Your task to perform on an android device: check data usage Image 0: 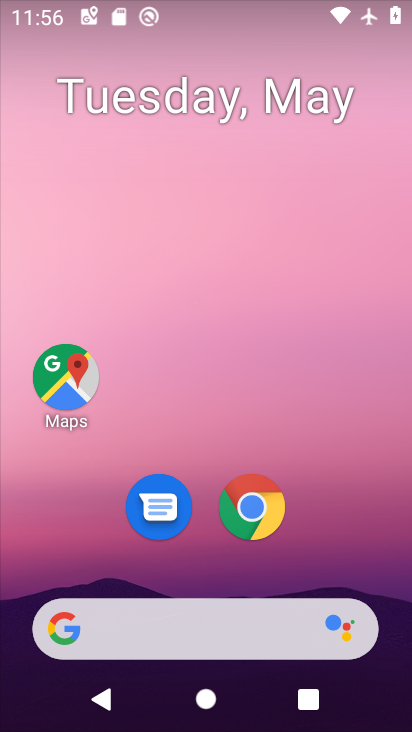
Step 0: drag from (258, 679) to (298, 58)
Your task to perform on an android device: check data usage Image 1: 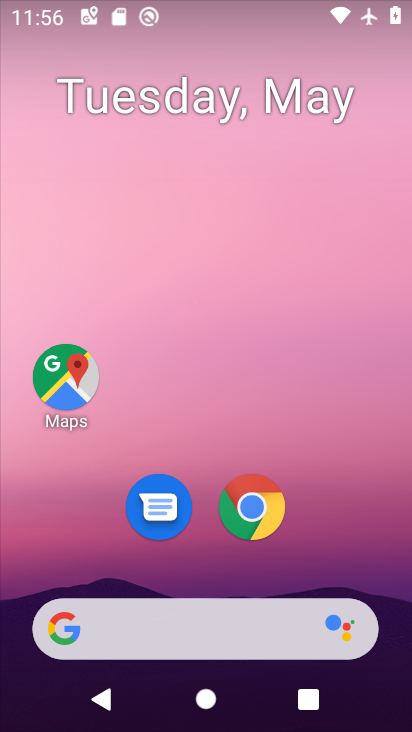
Step 1: drag from (257, 678) to (198, 142)
Your task to perform on an android device: check data usage Image 2: 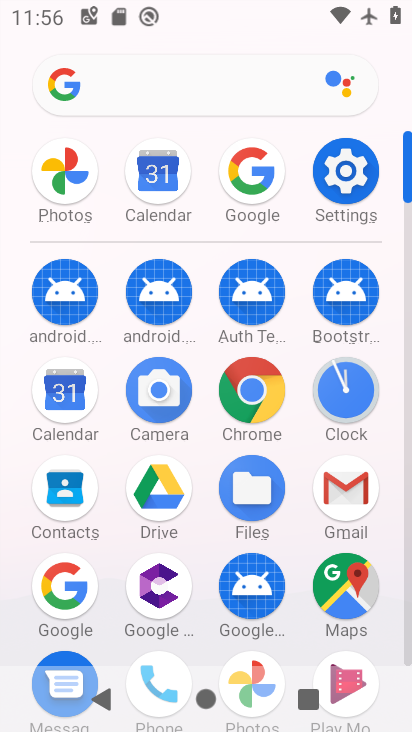
Step 2: click (361, 168)
Your task to perform on an android device: check data usage Image 3: 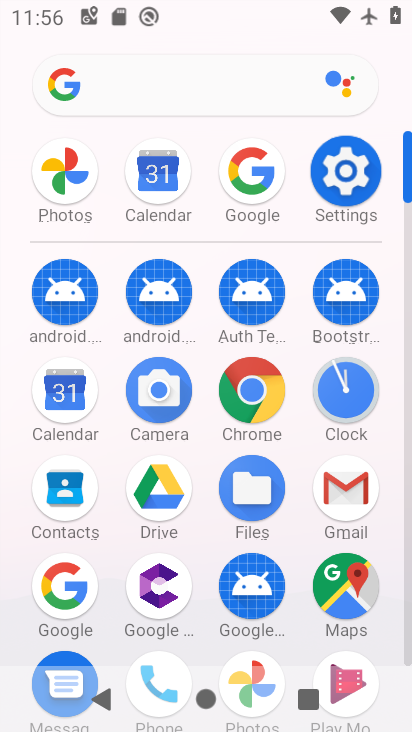
Step 3: click (361, 168)
Your task to perform on an android device: check data usage Image 4: 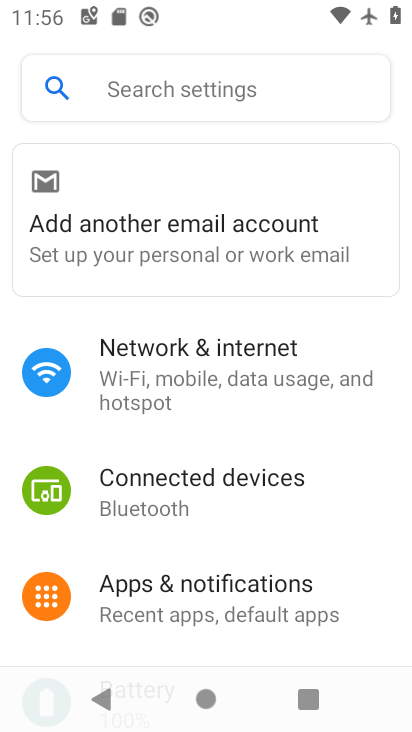
Step 4: click (207, 604)
Your task to perform on an android device: check data usage Image 5: 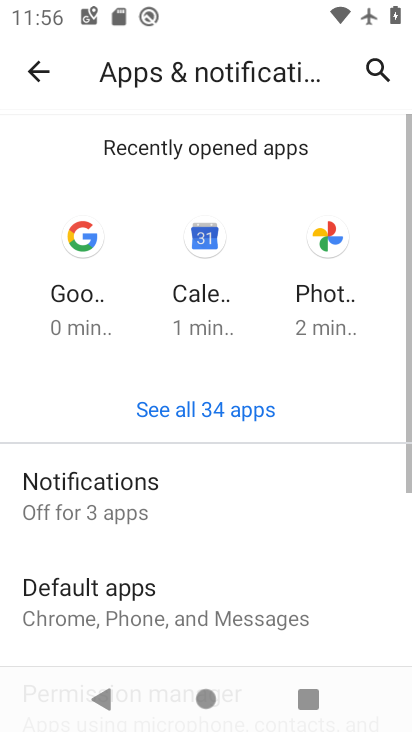
Step 5: click (33, 72)
Your task to perform on an android device: check data usage Image 6: 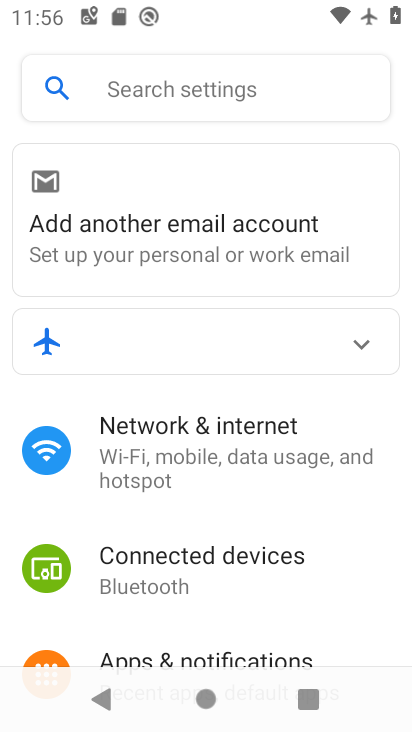
Step 6: click (241, 458)
Your task to perform on an android device: check data usage Image 7: 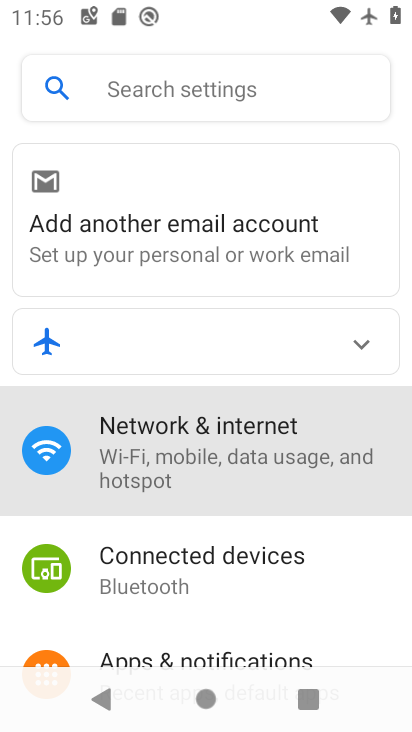
Step 7: click (243, 459)
Your task to perform on an android device: check data usage Image 8: 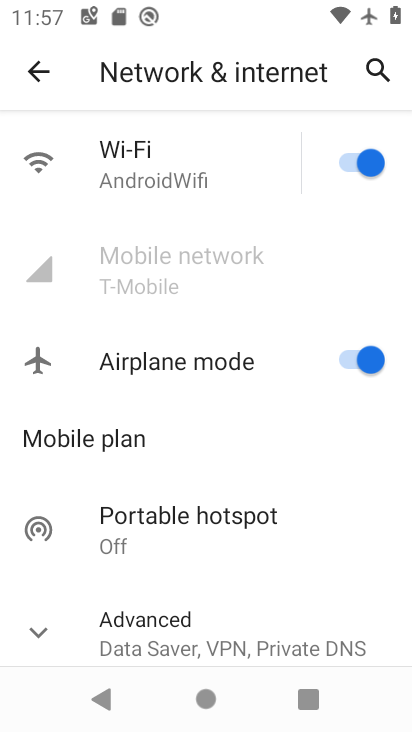
Step 8: click (372, 361)
Your task to perform on an android device: check data usage Image 9: 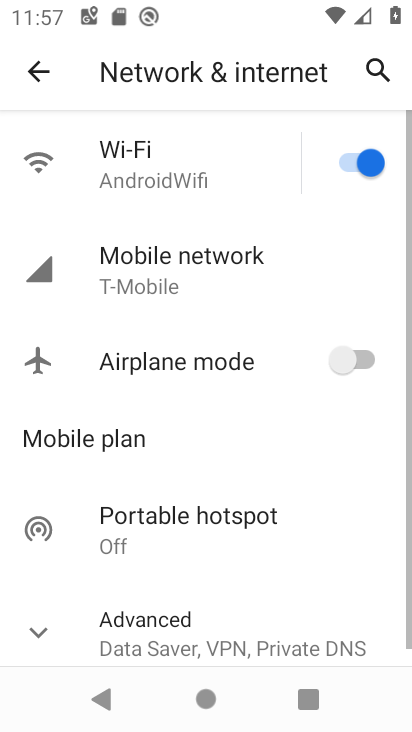
Step 9: click (172, 268)
Your task to perform on an android device: check data usage Image 10: 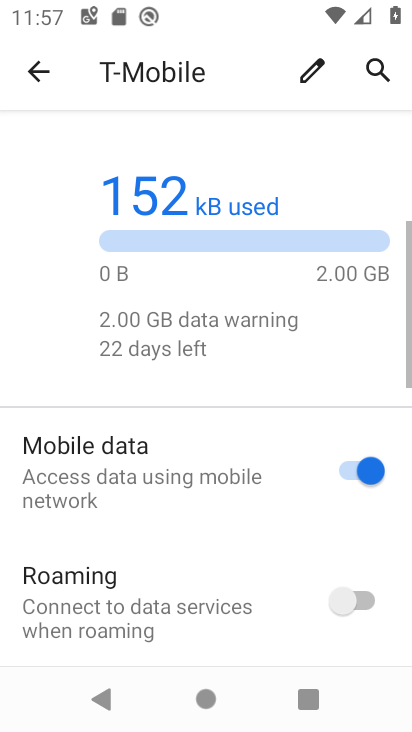
Step 10: task complete